Your task to perform on an android device: Go to privacy settings Image 0: 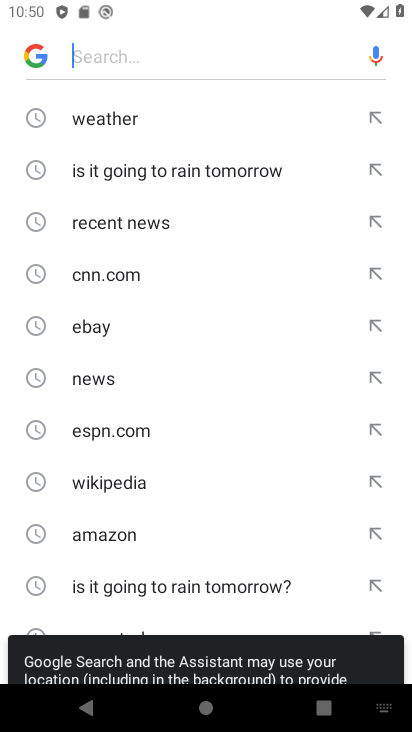
Step 0: press home button
Your task to perform on an android device: Go to privacy settings Image 1: 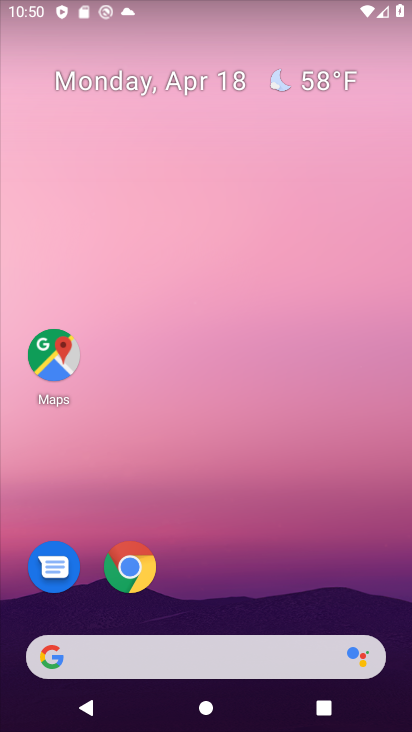
Step 1: drag from (382, 599) to (326, 202)
Your task to perform on an android device: Go to privacy settings Image 2: 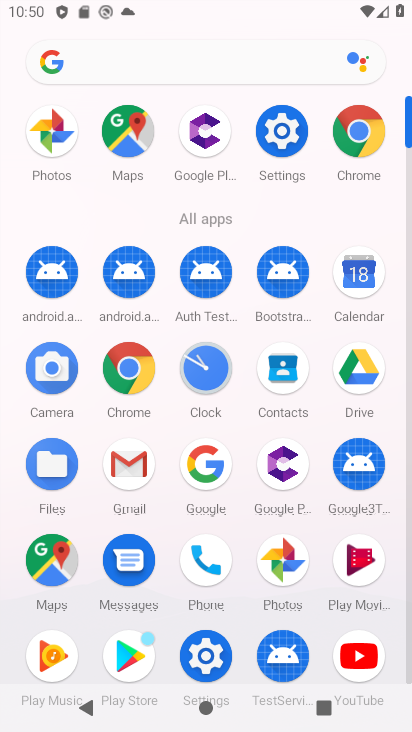
Step 2: click (408, 659)
Your task to perform on an android device: Go to privacy settings Image 3: 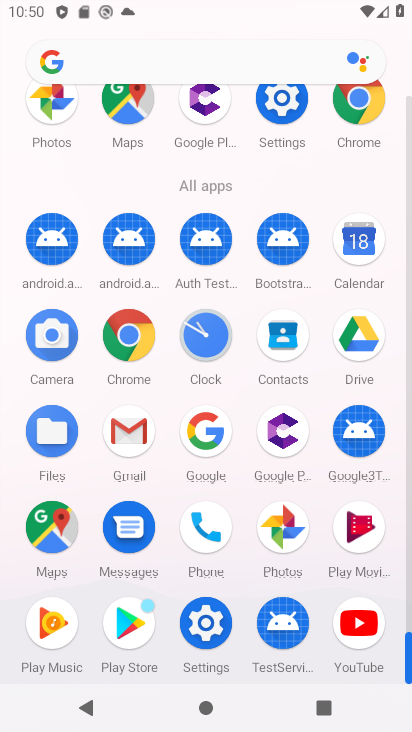
Step 3: click (206, 619)
Your task to perform on an android device: Go to privacy settings Image 4: 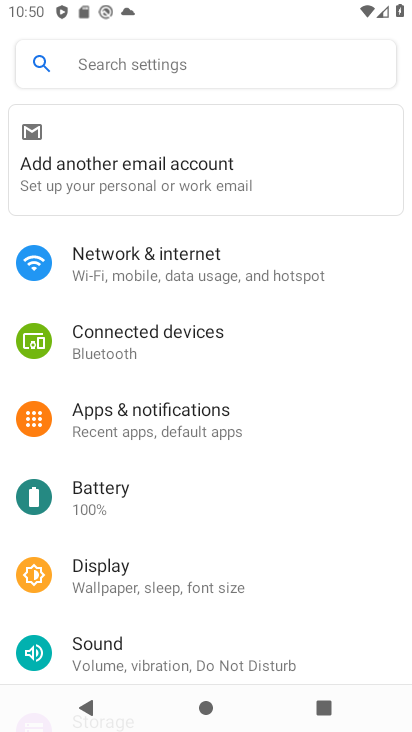
Step 4: drag from (346, 602) to (289, 213)
Your task to perform on an android device: Go to privacy settings Image 5: 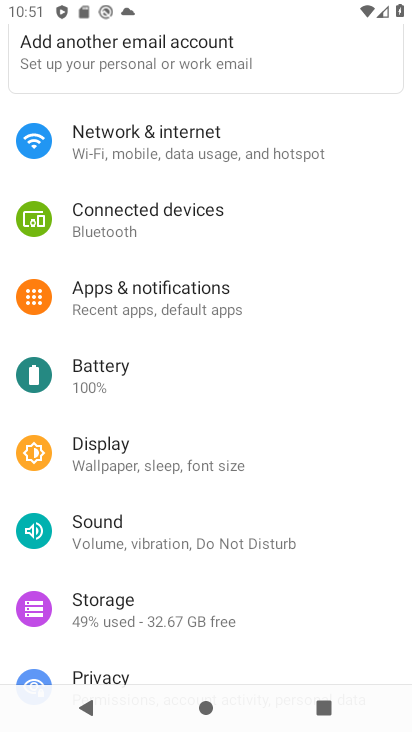
Step 5: drag from (299, 540) to (311, 229)
Your task to perform on an android device: Go to privacy settings Image 6: 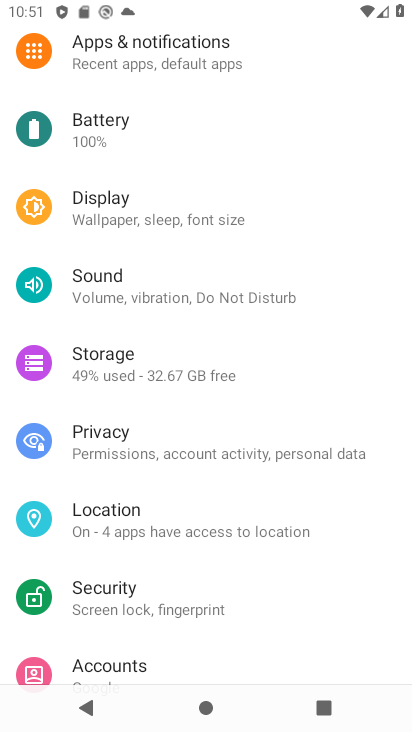
Step 6: click (88, 431)
Your task to perform on an android device: Go to privacy settings Image 7: 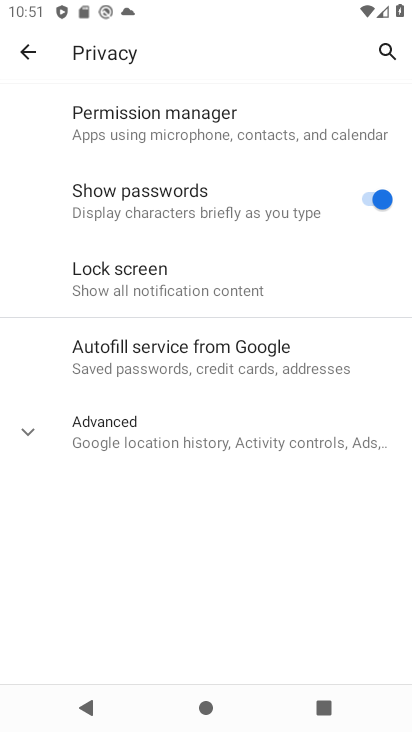
Step 7: click (33, 429)
Your task to perform on an android device: Go to privacy settings Image 8: 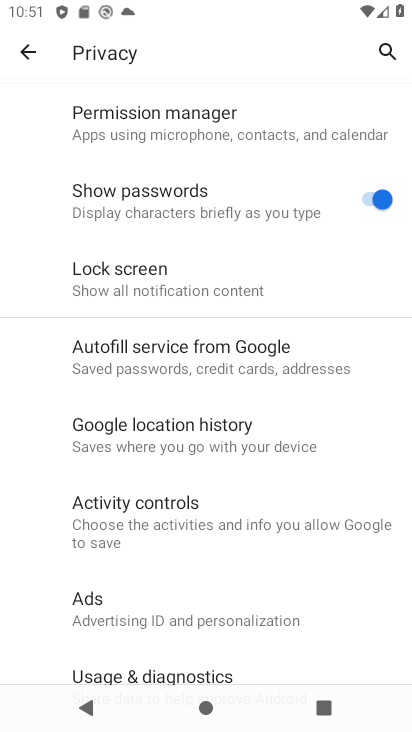
Step 8: task complete